Your task to perform on an android device: manage bookmarks in the chrome app Image 0: 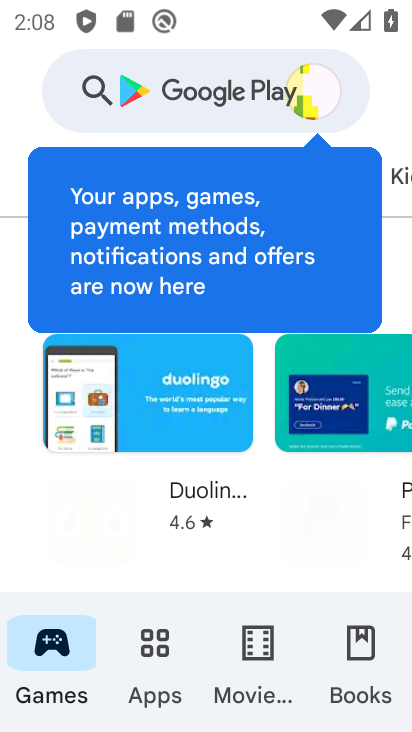
Step 0: press home button
Your task to perform on an android device: manage bookmarks in the chrome app Image 1: 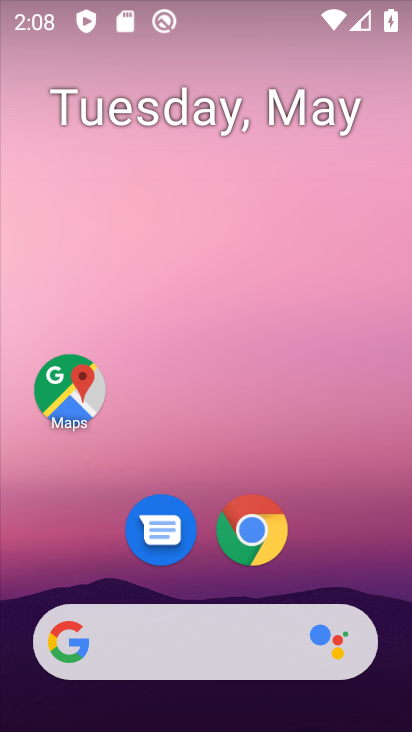
Step 1: click (235, 548)
Your task to perform on an android device: manage bookmarks in the chrome app Image 2: 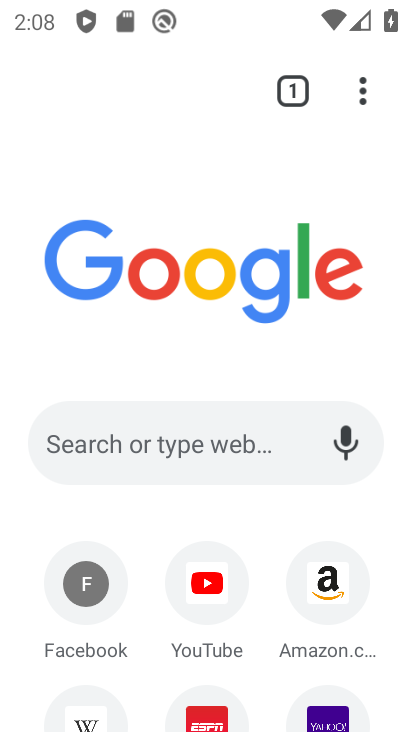
Step 2: task complete